Your task to perform on an android device: Show me productivity apps on the Play Store Image 0: 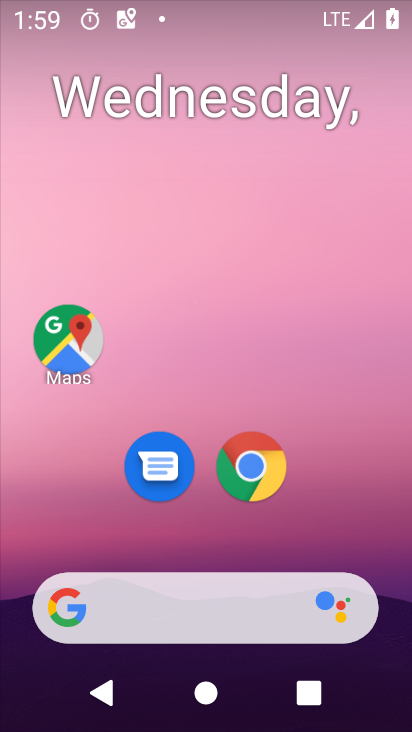
Step 0: drag from (298, 398) to (299, 76)
Your task to perform on an android device: Show me productivity apps on the Play Store Image 1: 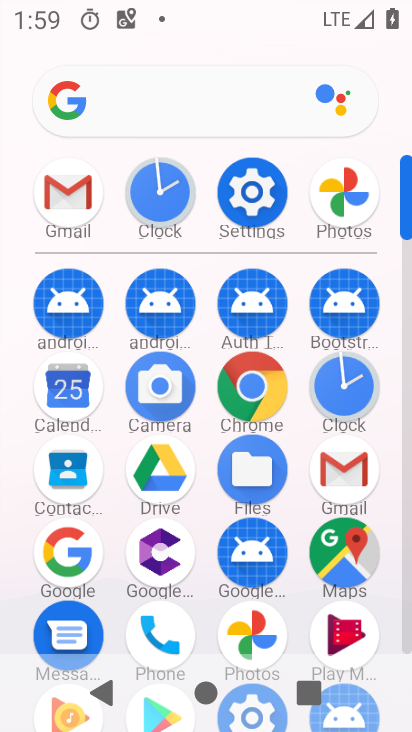
Step 1: drag from (216, 451) to (227, 93)
Your task to perform on an android device: Show me productivity apps on the Play Store Image 2: 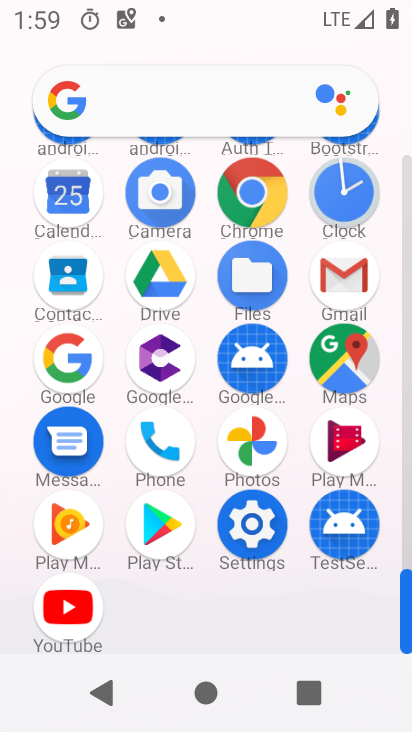
Step 2: click (161, 520)
Your task to perform on an android device: Show me productivity apps on the Play Store Image 3: 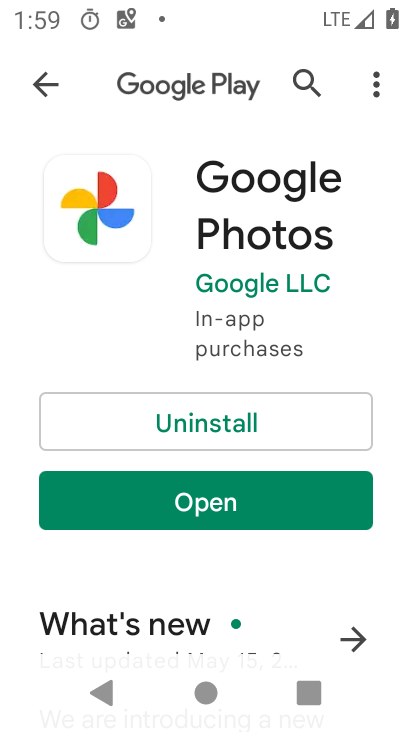
Step 3: press back button
Your task to perform on an android device: Show me productivity apps on the Play Store Image 4: 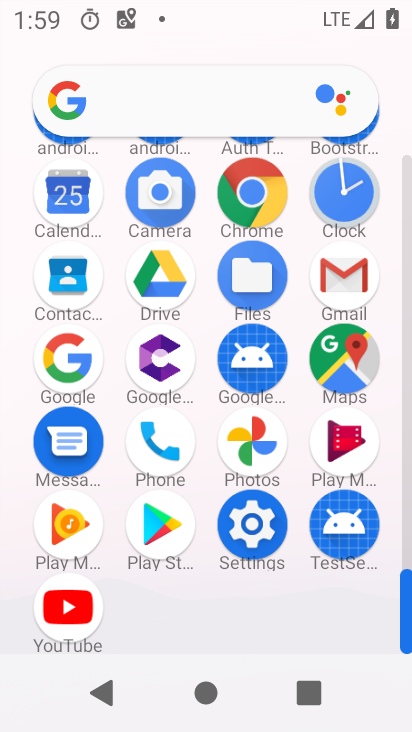
Step 4: click (145, 523)
Your task to perform on an android device: Show me productivity apps on the Play Store Image 5: 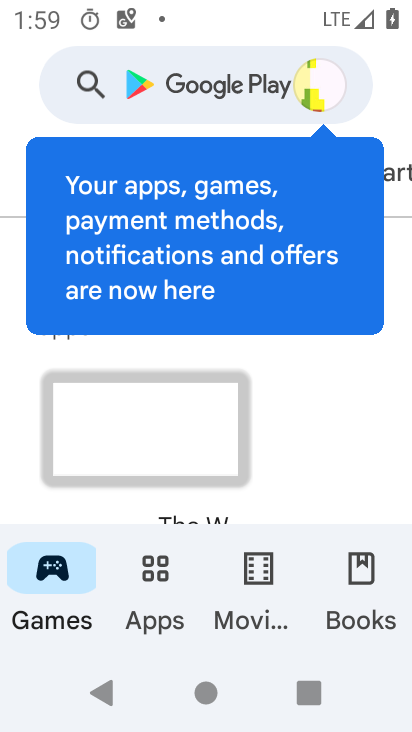
Step 5: click (181, 80)
Your task to perform on an android device: Show me productivity apps on the Play Store Image 6: 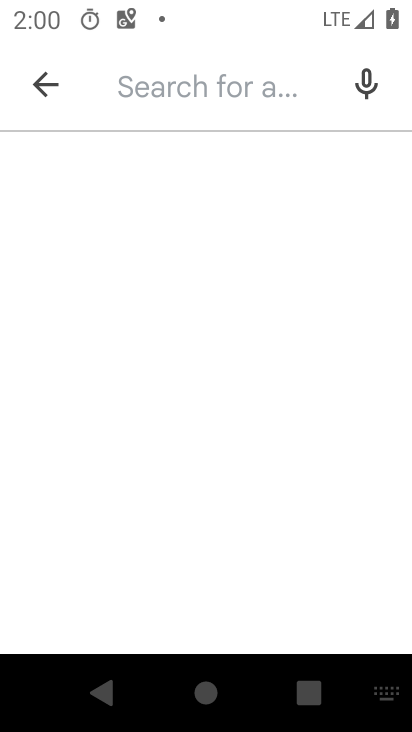
Step 6: type "productivity app"
Your task to perform on an android device: Show me productivity apps on the Play Store Image 7: 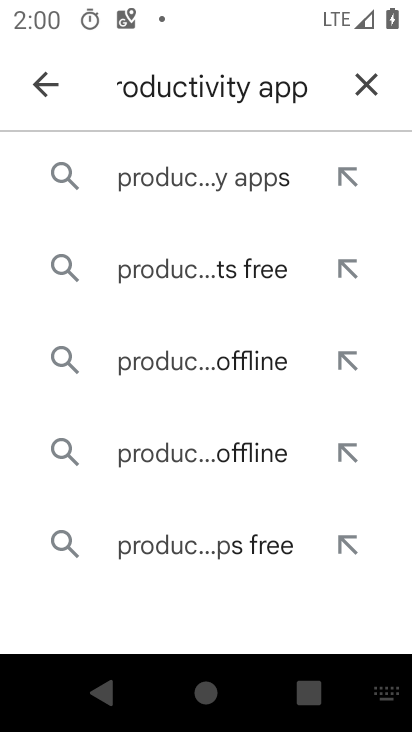
Step 7: click (201, 174)
Your task to perform on an android device: Show me productivity apps on the Play Store Image 8: 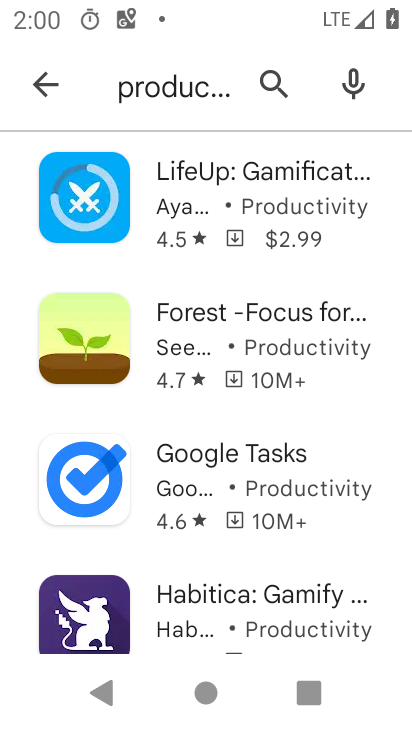
Step 8: click (217, 91)
Your task to perform on an android device: Show me productivity apps on the Play Store Image 9: 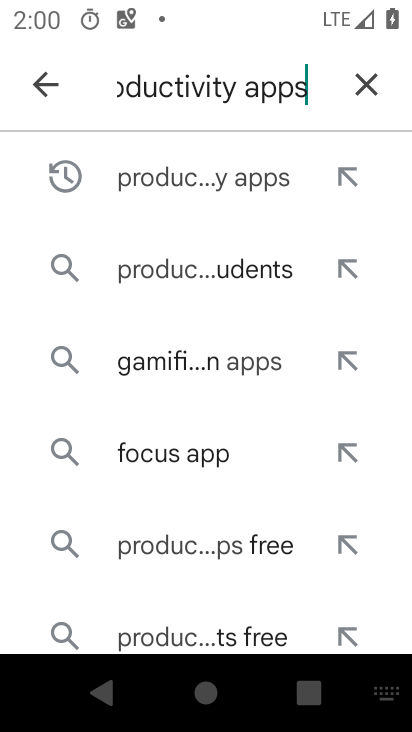
Step 9: click (257, 182)
Your task to perform on an android device: Show me productivity apps on the Play Store Image 10: 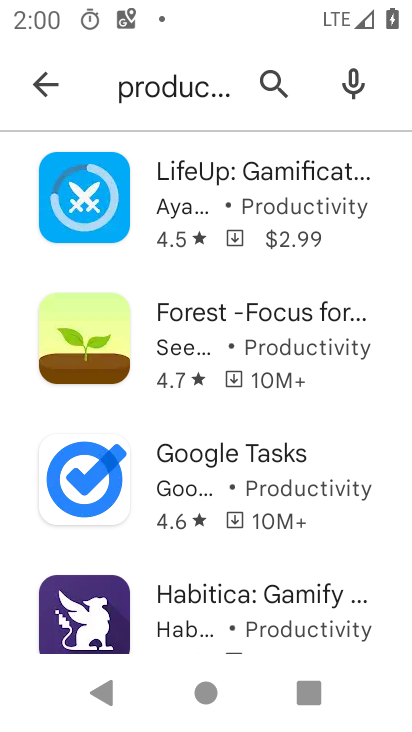
Step 10: task complete